Your task to perform on an android device: change your default location settings in chrome Image 0: 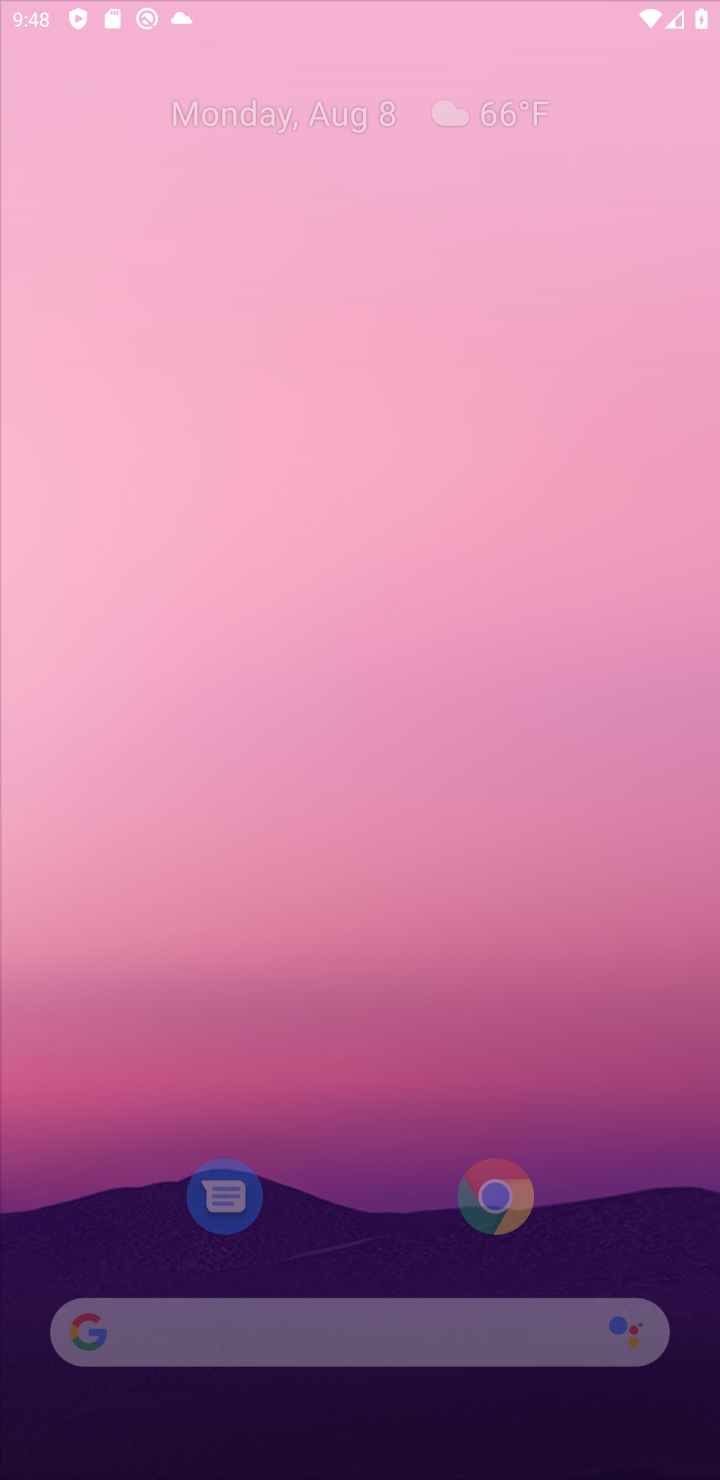
Step 0: press home button
Your task to perform on an android device: change your default location settings in chrome Image 1: 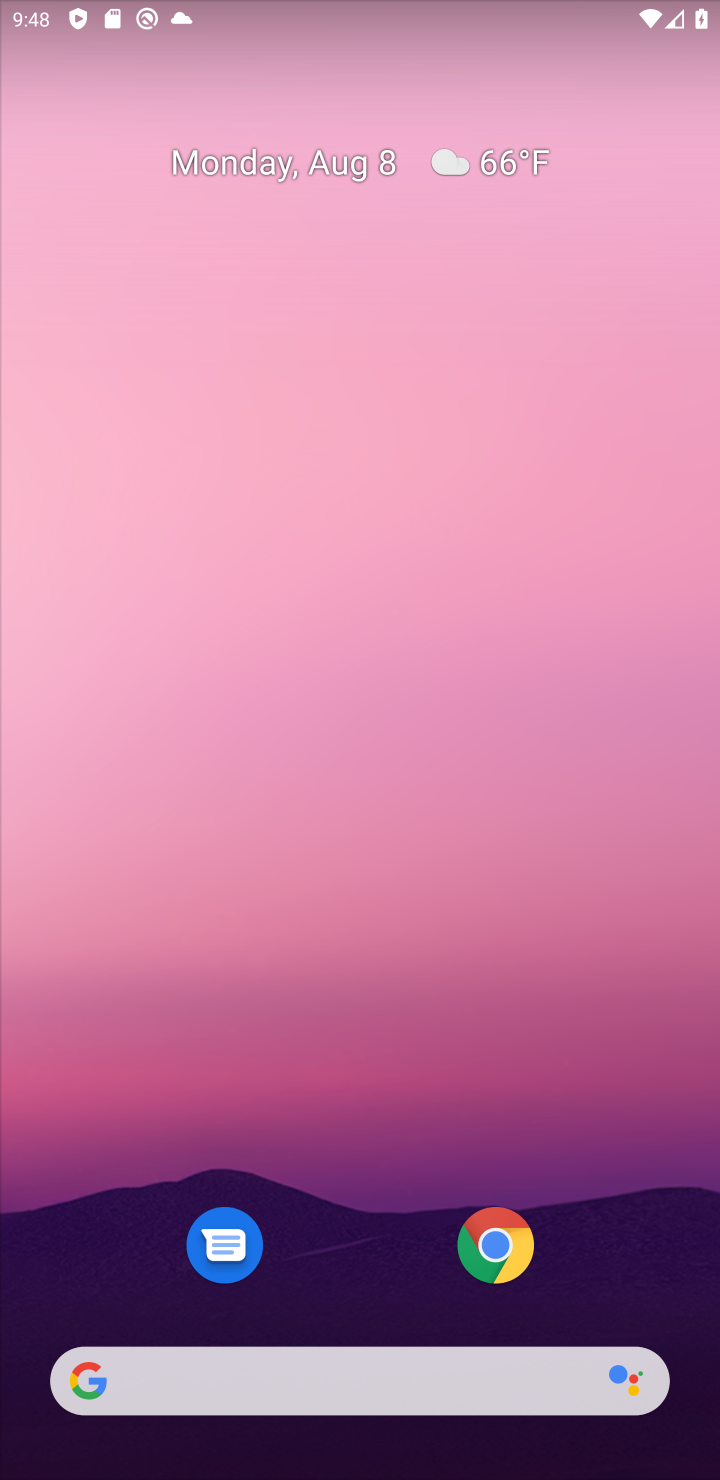
Step 1: click (486, 1243)
Your task to perform on an android device: change your default location settings in chrome Image 2: 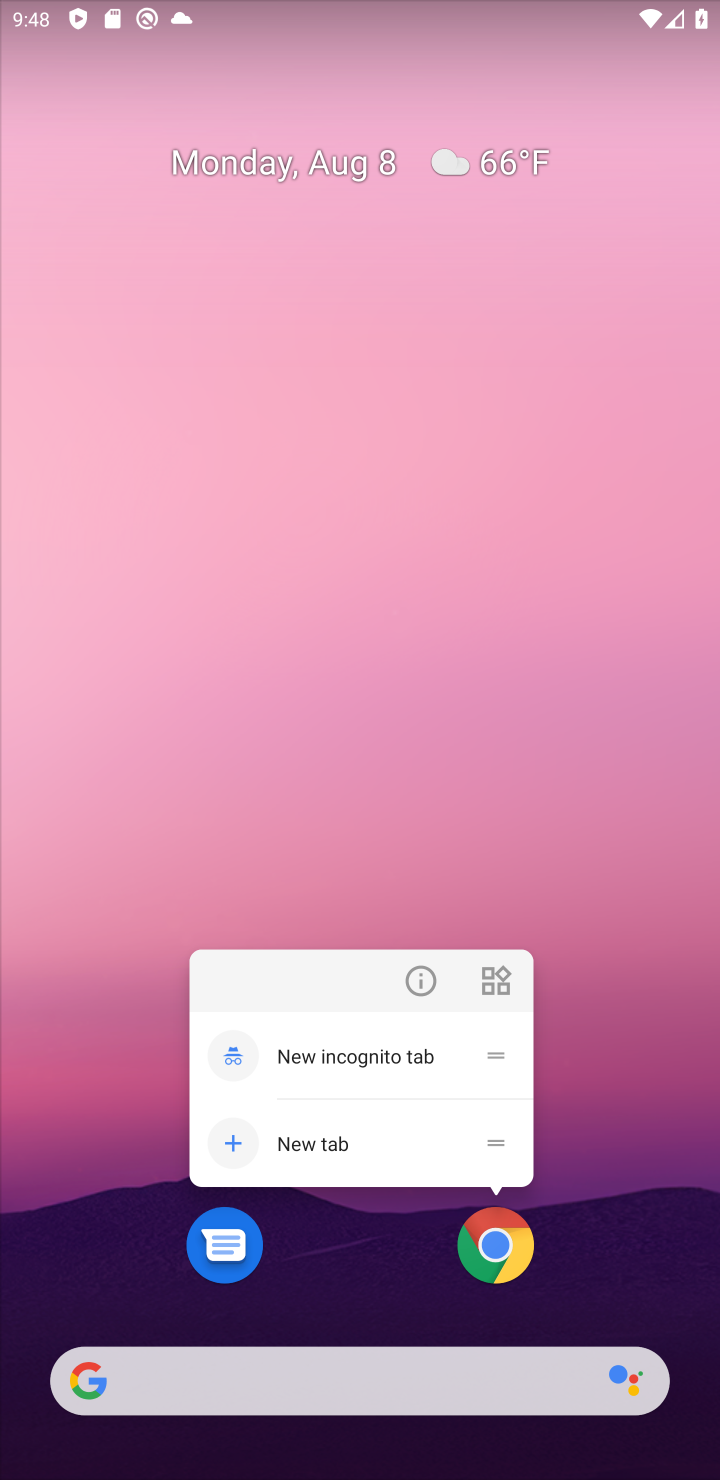
Step 2: click (496, 1246)
Your task to perform on an android device: change your default location settings in chrome Image 3: 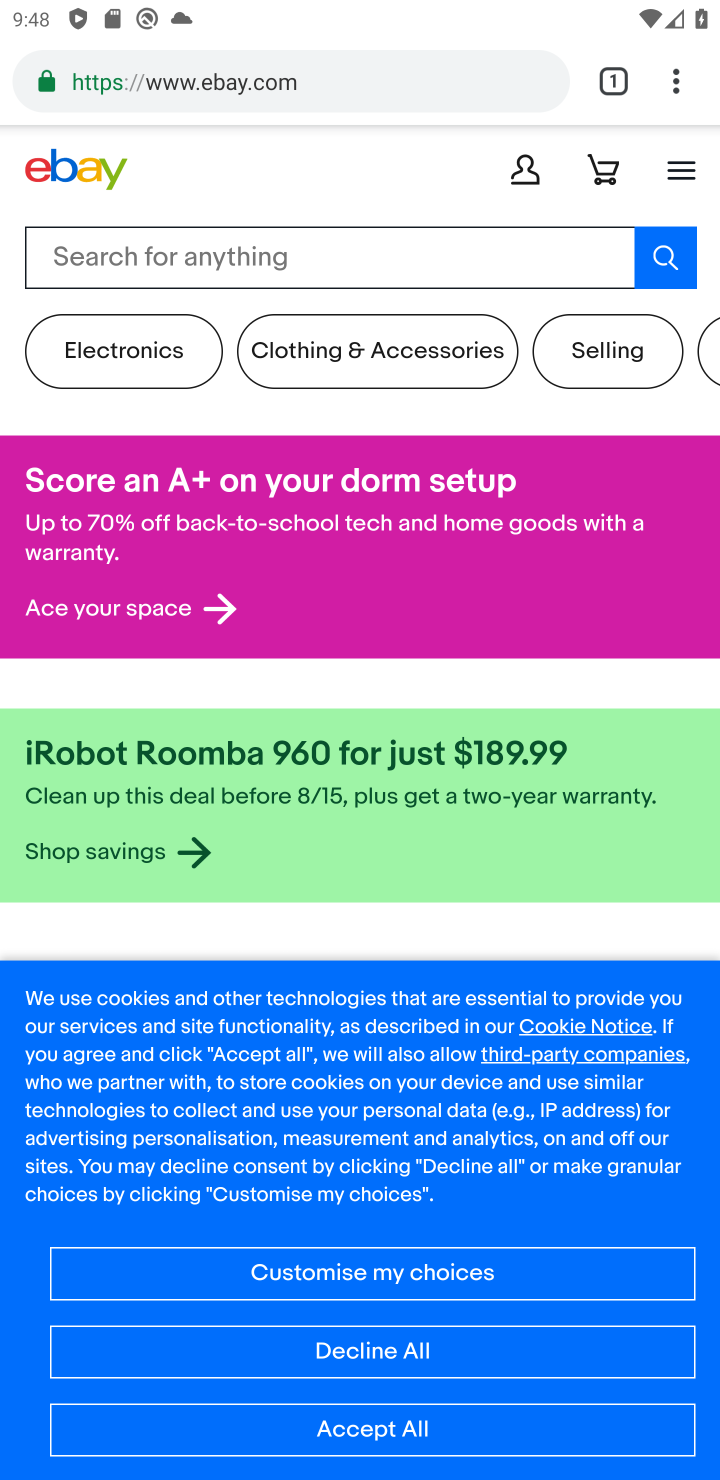
Step 3: click (682, 73)
Your task to perform on an android device: change your default location settings in chrome Image 4: 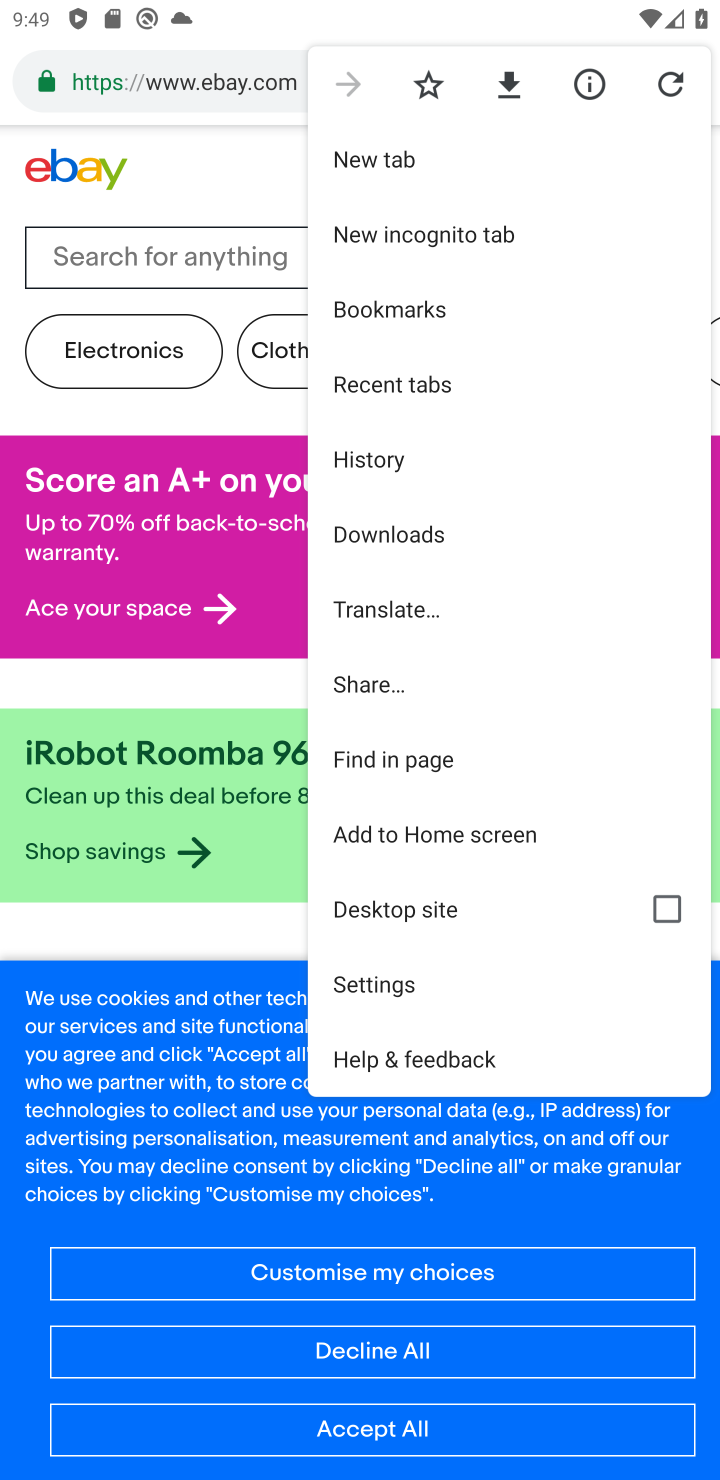
Step 4: click (367, 983)
Your task to perform on an android device: change your default location settings in chrome Image 5: 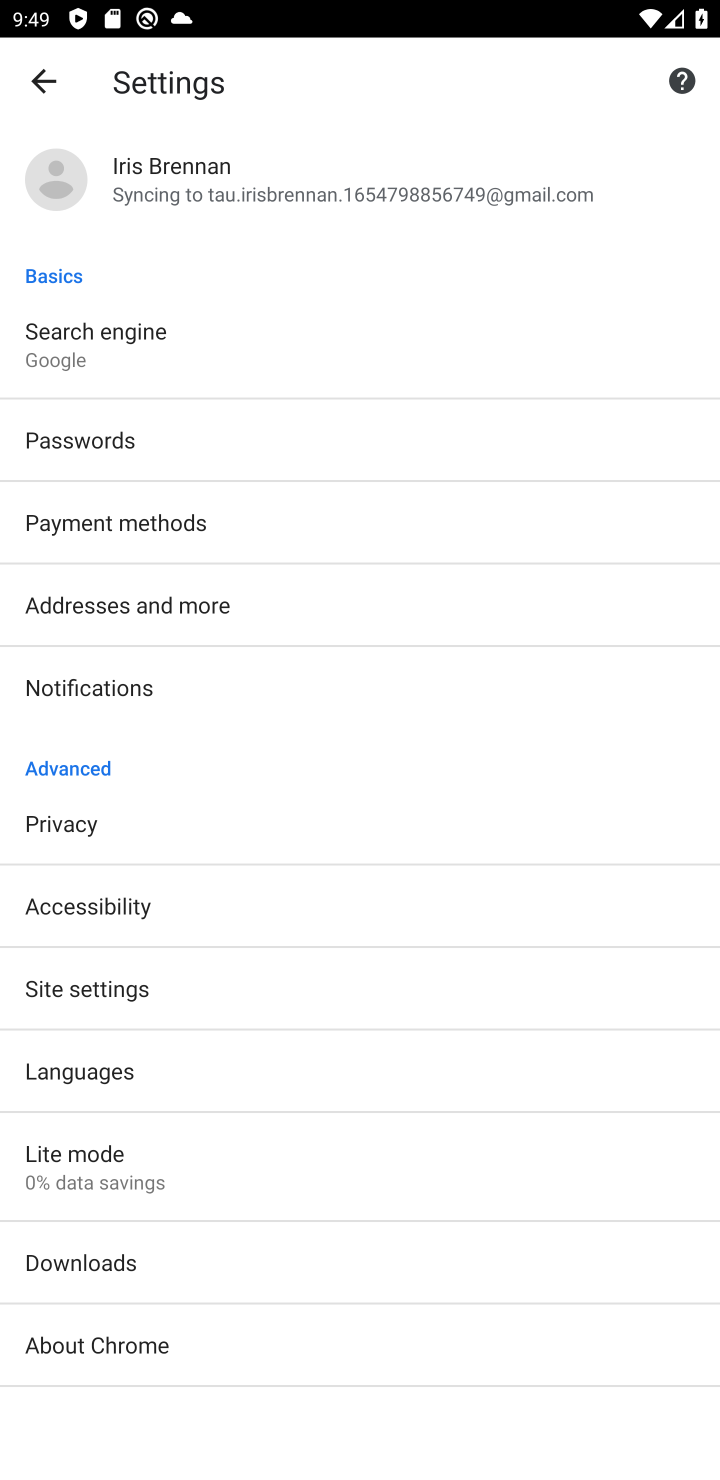
Step 5: click (91, 980)
Your task to perform on an android device: change your default location settings in chrome Image 6: 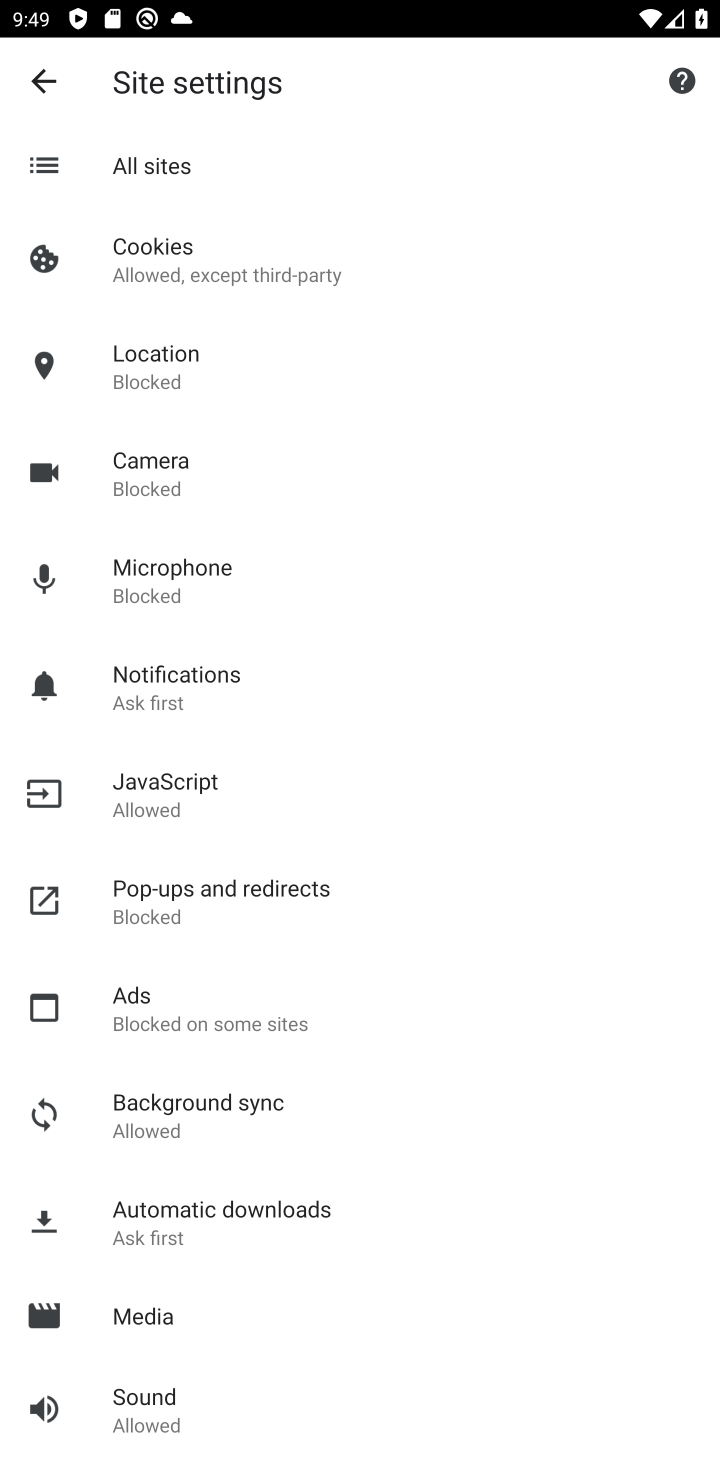
Step 6: click (141, 349)
Your task to perform on an android device: change your default location settings in chrome Image 7: 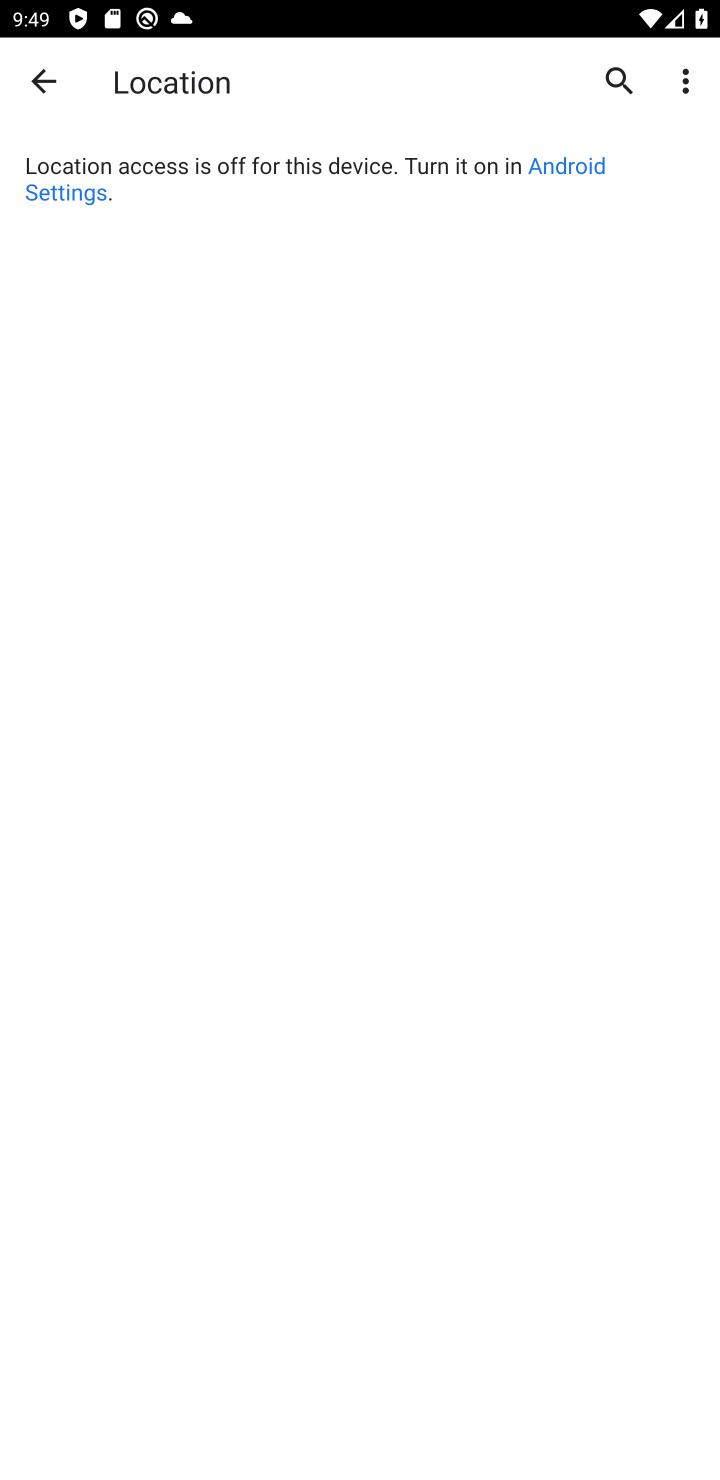
Step 7: click (557, 174)
Your task to perform on an android device: change your default location settings in chrome Image 8: 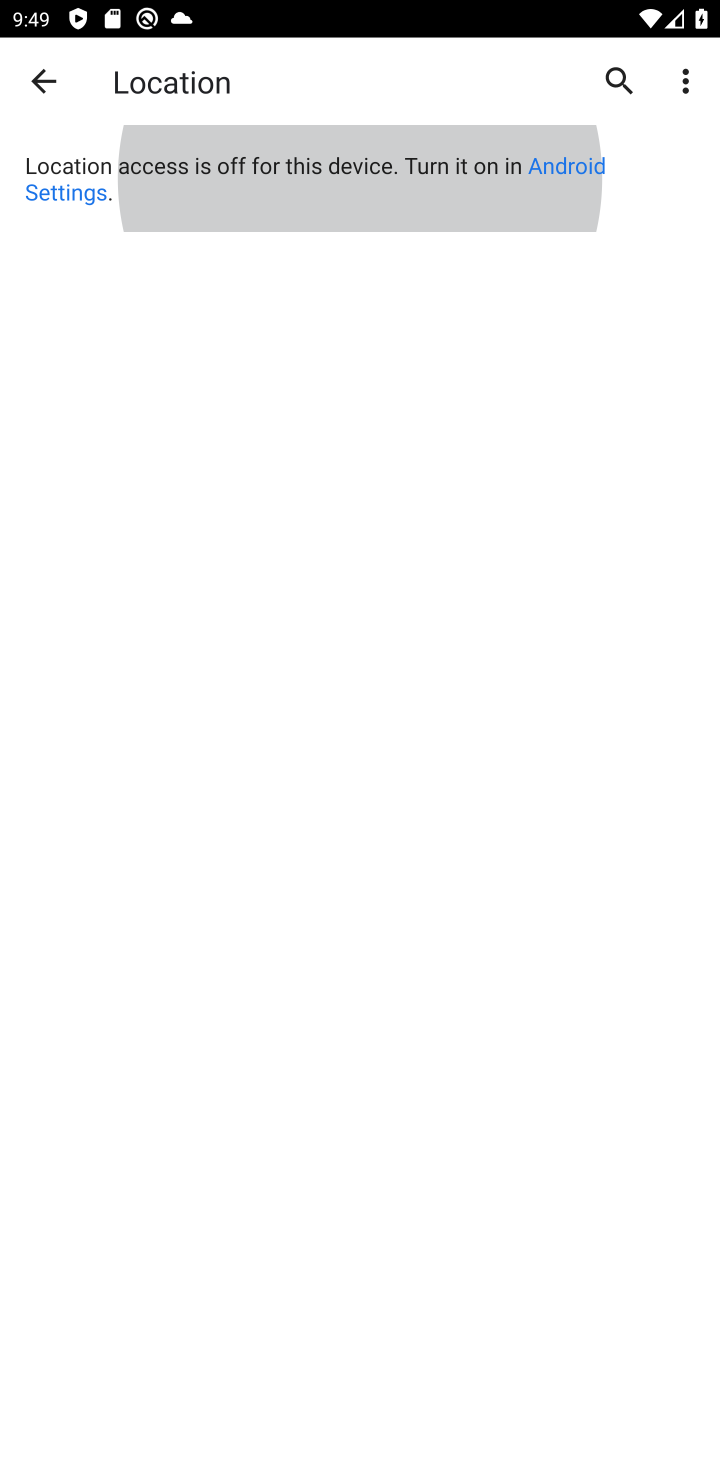
Step 8: click (557, 174)
Your task to perform on an android device: change your default location settings in chrome Image 9: 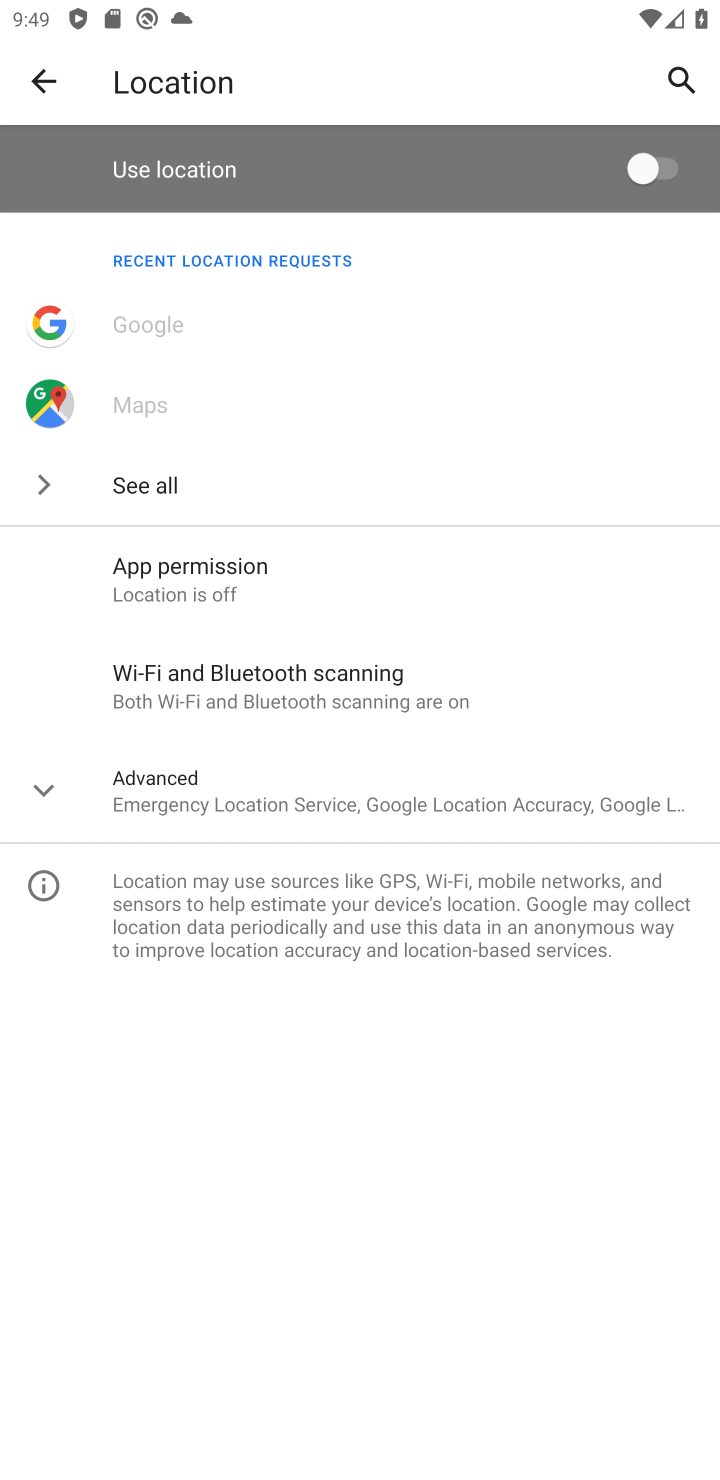
Step 9: click (640, 164)
Your task to perform on an android device: change your default location settings in chrome Image 10: 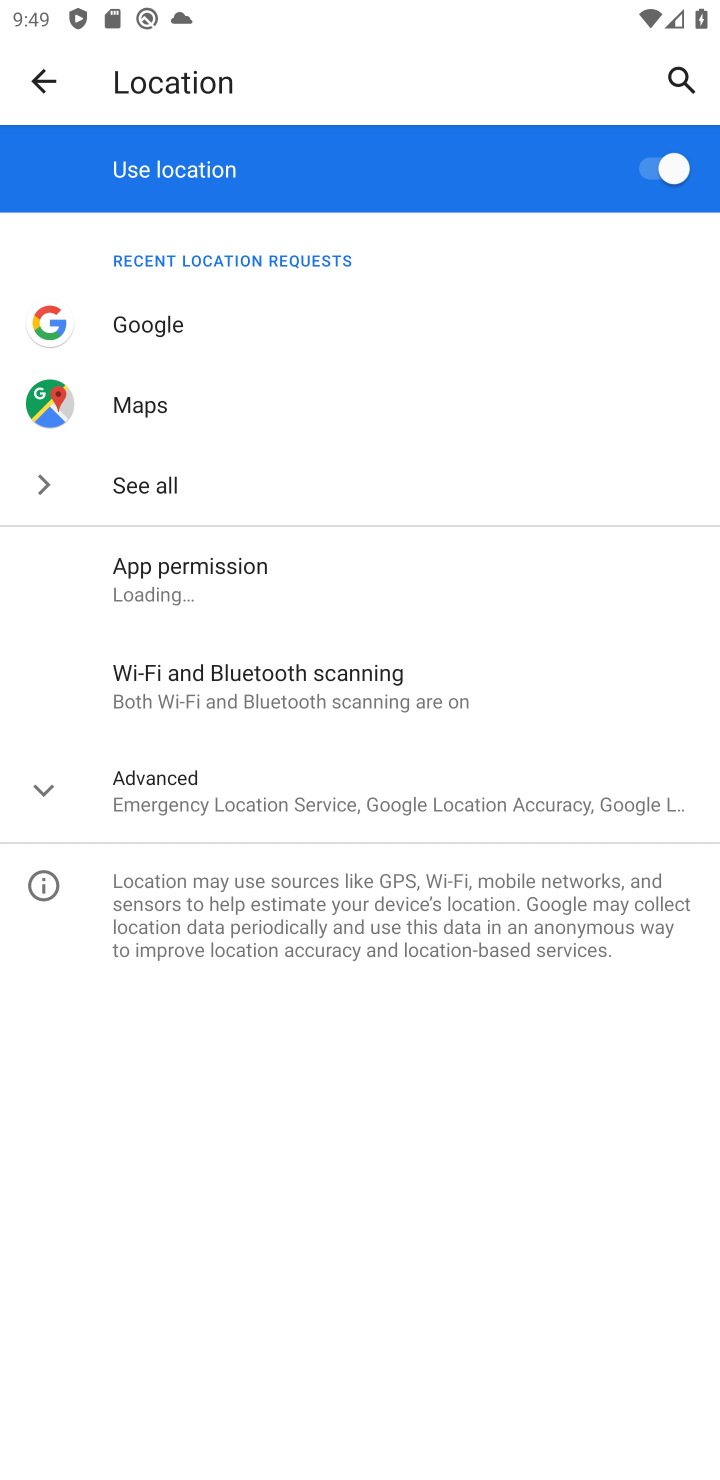
Step 10: task complete